Your task to perform on an android device: Show me the alarms in the clock app Image 0: 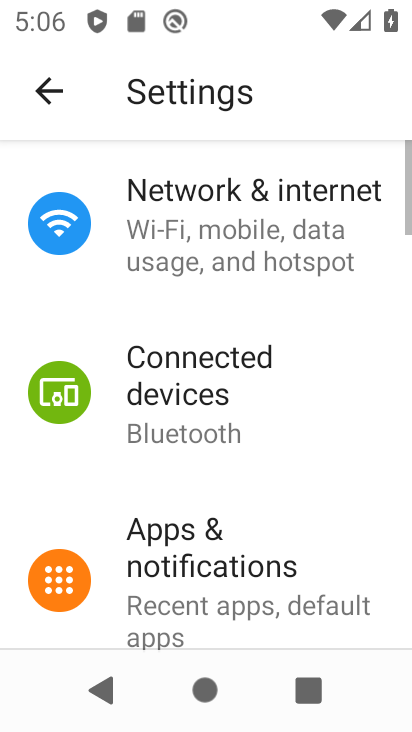
Step 0: press home button
Your task to perform on an android device: Show me the alarms in the clock app Image 1: 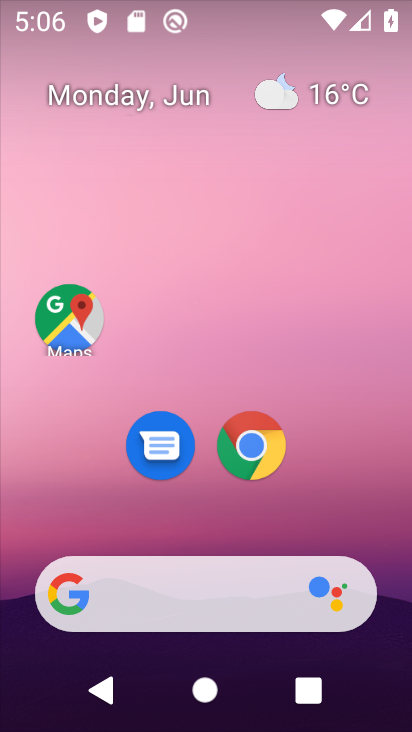
Step 1: drag from (340, 516) to (238, 27)
Your task to perform on an android device: Show me the alarms in the clock app Image 2: 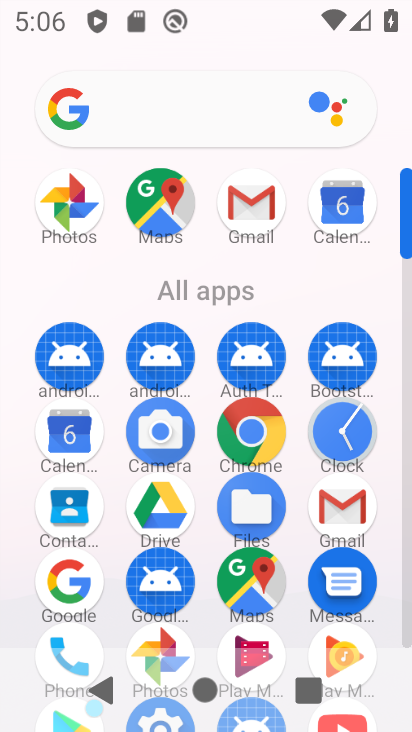
Step 2: click (342, 434)
Your task to perform on an android device: Show me the alarms in the clock app Image 3: 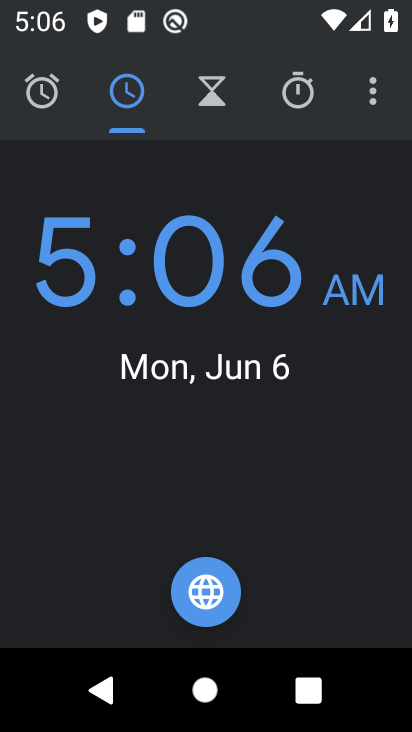
Step 3: click (58, 87)
Your task to perform on an android device: Show me the alarms in the clock app Image 4: 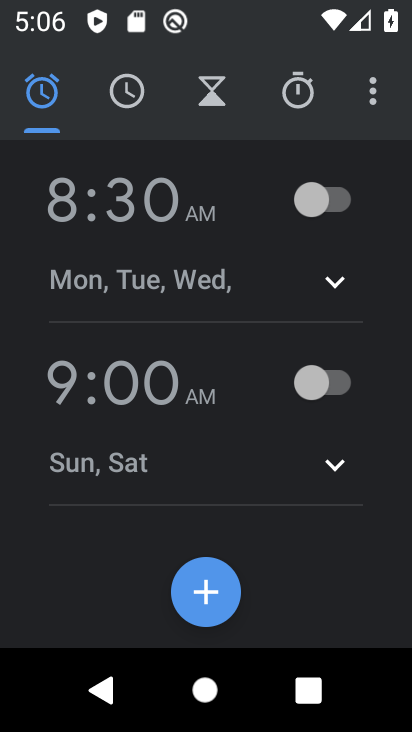
Step 4: click (206, 596)
Your task to perform on an android device: Show me the alarms in the clock app Image 5: 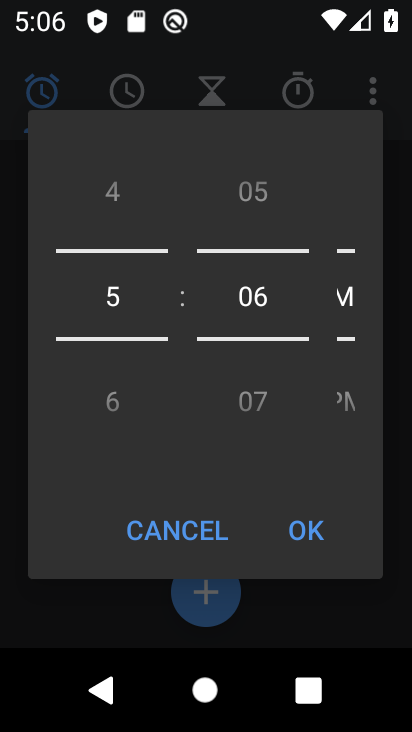
Step 5: click (344, 398)
Your task to perform on an android device: Show me the alarms in the clock app Image 6: 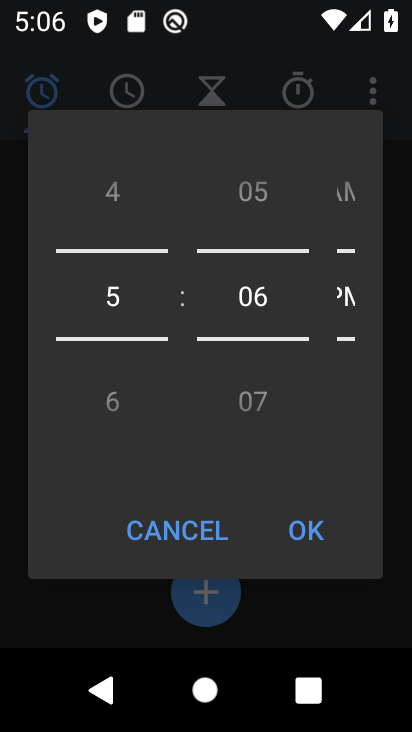
Step 6: click (303, 521)
Your task to perform on an android device: Show me the alarms in the clock app Image 7: 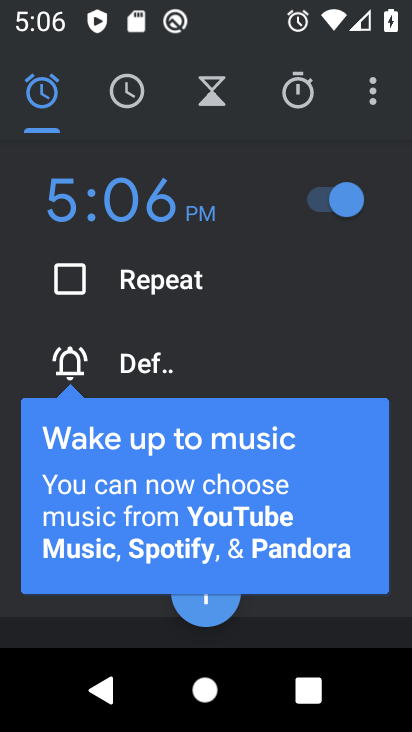
Step 7: click (304, 170)
Your task to perform on an android device: Show me the alarms in the clock app Image 8: 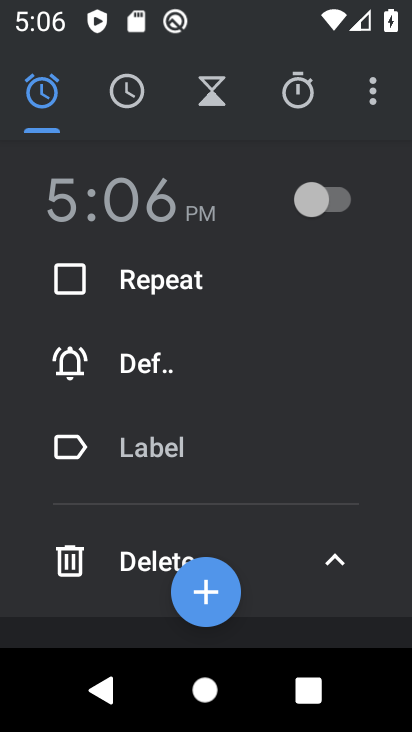
Step 8: click (338, 555)
Your task to perform on an android device: Show me the alarms in the clock app Image 9: 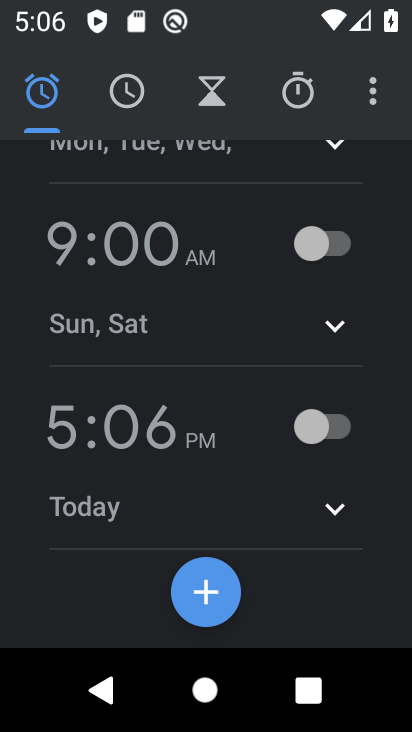
Step 9: task complete